Your task to perform on an android device: add a label to a message in the gmail app Image 0: 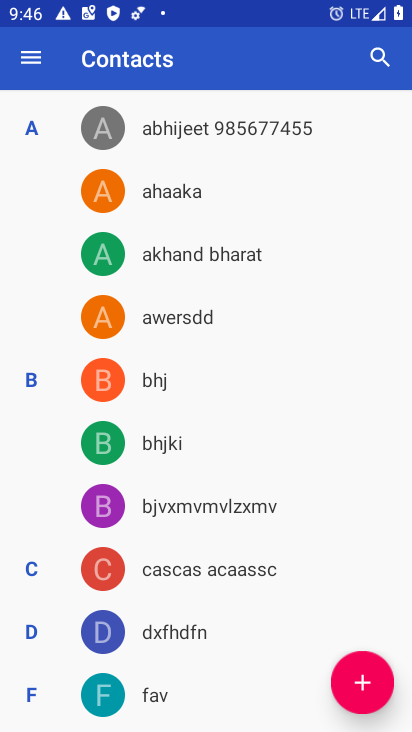
Step 0: press home button
Your task to perform on an android device: add a label to a message in the gmail app Image 1: 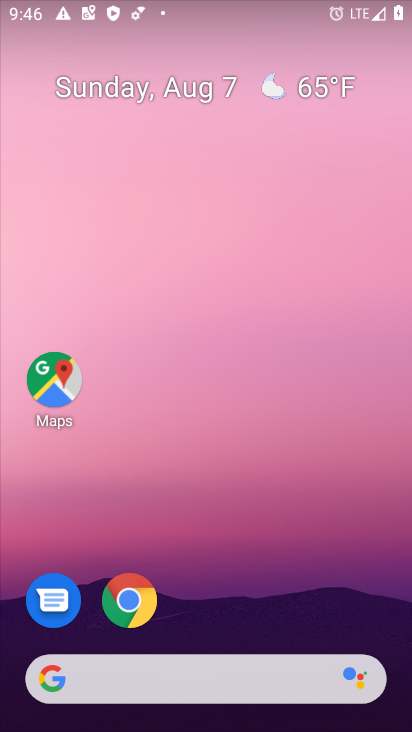
Step 1: drag from (181, 588) to (126, 78)
Your task to perform on an android device: add a label to a message in the gmail app Image 2: 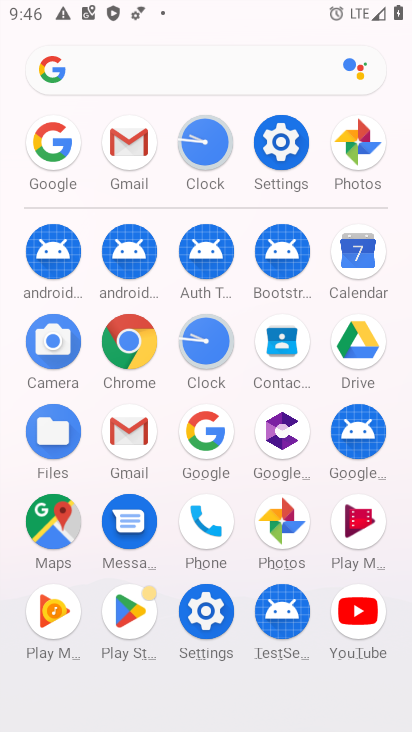
Step 2: click (122, 163)
Your task to perform on an android device: add a label to a message in the gmail app Image 3: 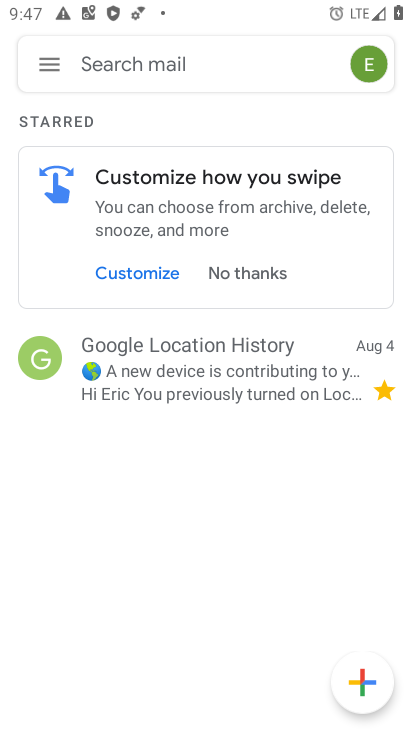
Step 3: click (251, 382)
Your task to perform on an android device: add a label to a message in the gmail app Image 4: 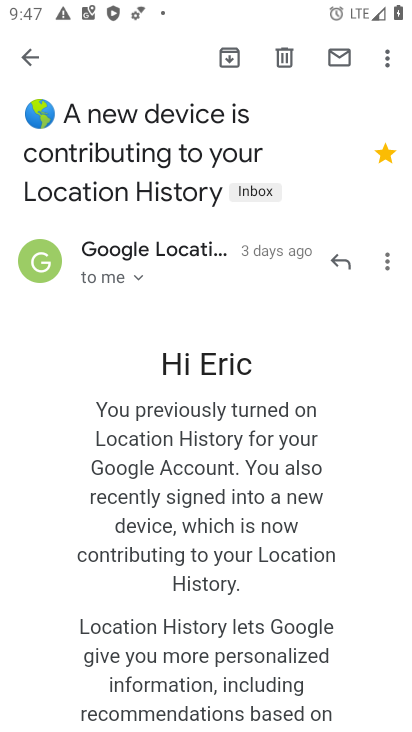
Step 4: click (243, 196)
Your task to perform on an android device: add a label to a message in the gmail app Image 5: 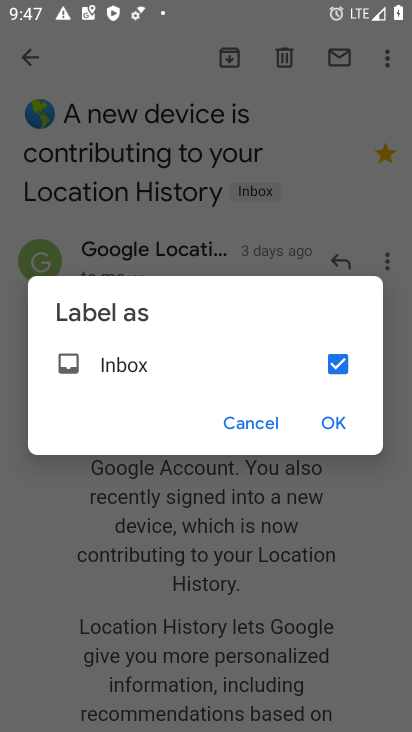
Step 5: click (329, 417)
Your task to perform on an android device: add a label to a message in the gmail app Image 6: 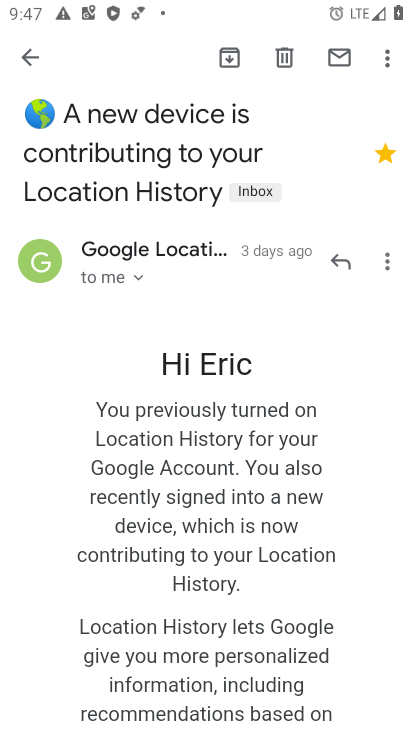
Step 6: task complete